Your task to perform on an android device: Is it going to rain today? Image 0: 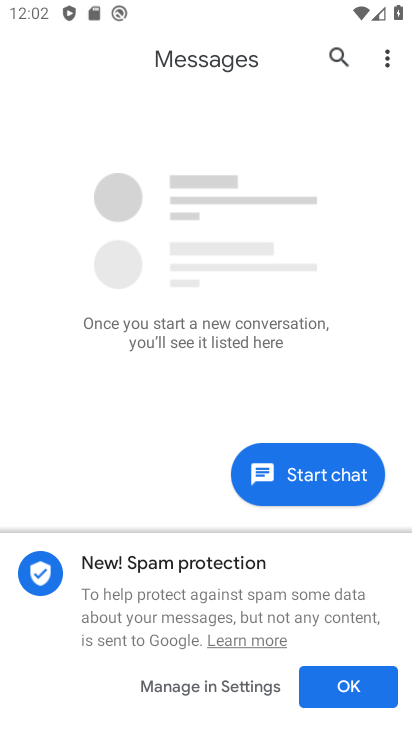
Step 0: press back button
Your task to perform on an android device: Is it going to rain today? Image 1: 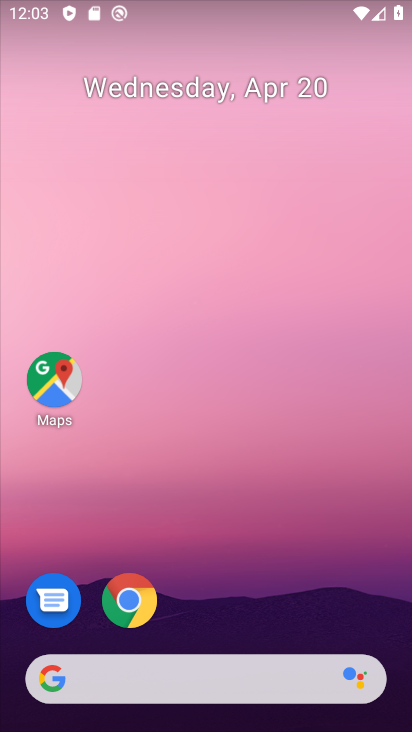
Step 1: drag from (249, 168) to (255, 39)
Your task to perform on an android device: Is it going to rain today? Image 2: 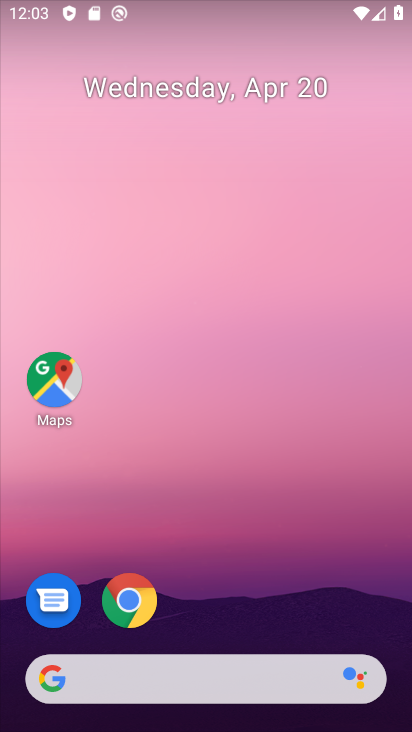
Step 2: click (204, 653)
Your task to perform on an android device: Is it going to rain today? Image 3: 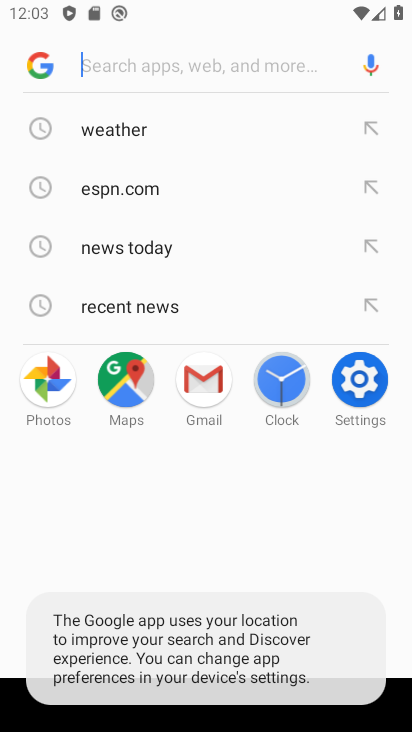
Step 3: click (146, 129)
Your task to perform on an android device: Is it going to rain today? Image 4: 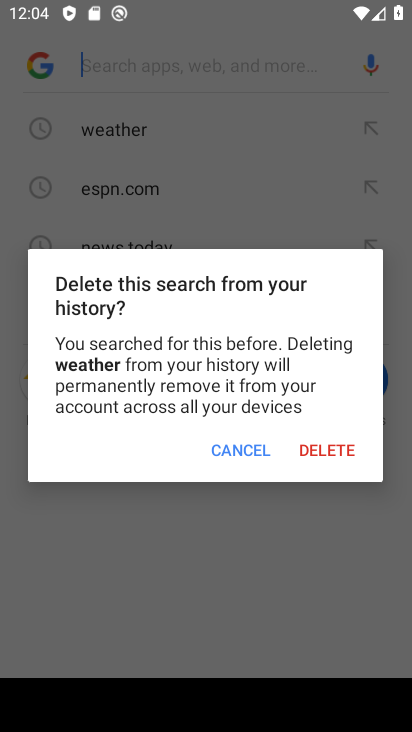
Step 4: click (260, 450)
Your task to perform on an android device: Is it going to rain today? Image 5: 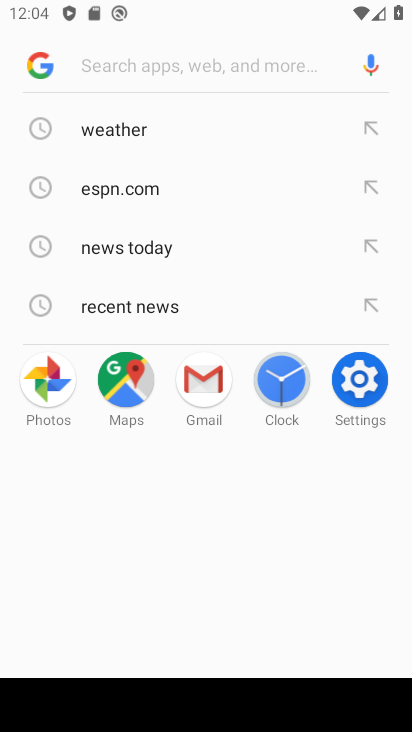
Step 5: click (205, 128)
Your task to perform on an android device: Is it going to rain today? Image 6: 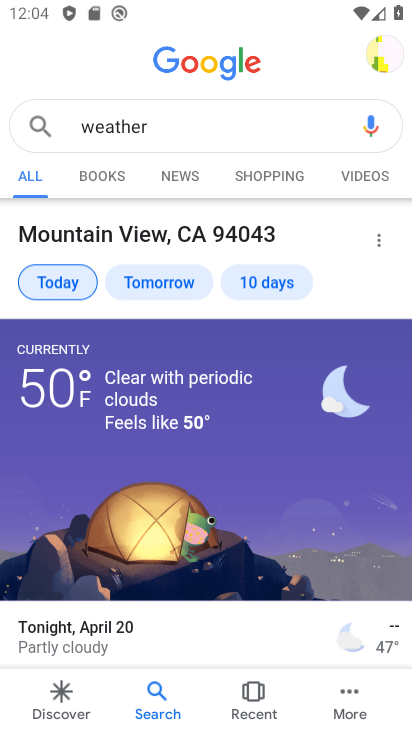
Step 6: task complete